Your task to perform on an android device: When is my next appointment? Image 0: 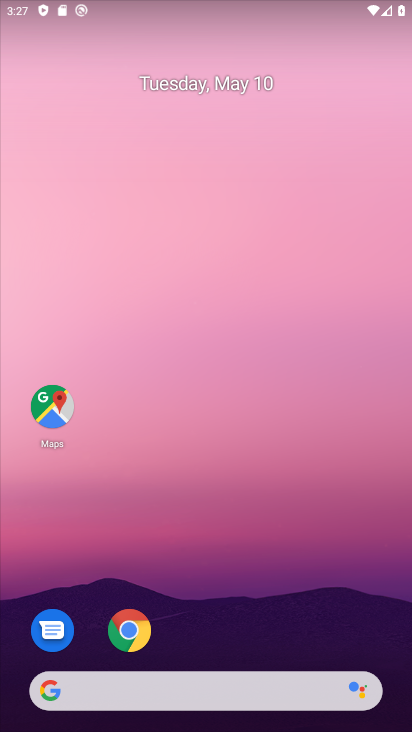
Step 0: drag from (194, 637) to (244, 232)
Your task to perform on an android device: When is my next appointment? Image 1: 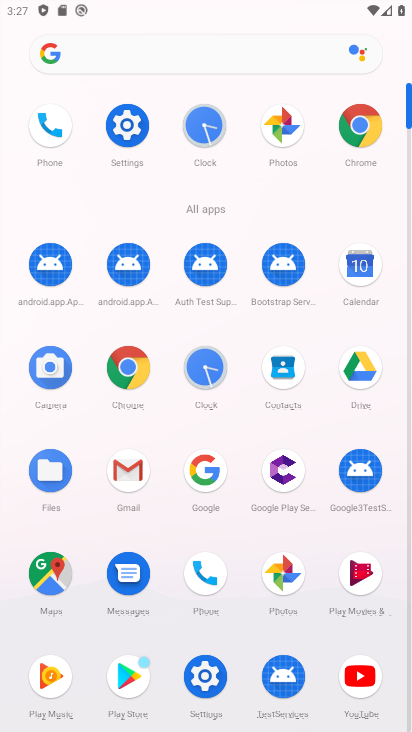
Step 1: click (384, 267)
Your task to perform on an android device: When is my next appointment? Image 2: 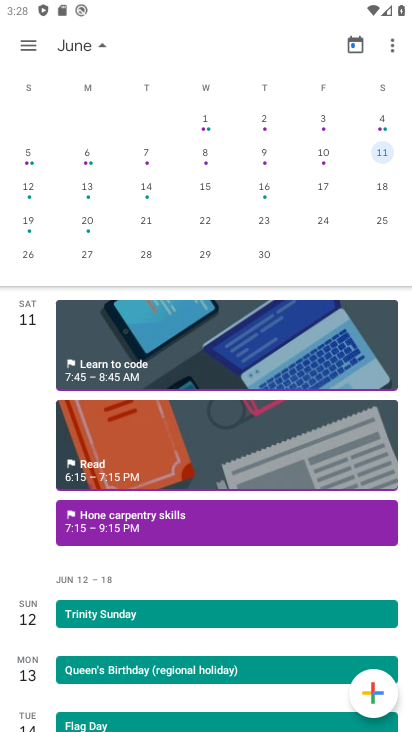
Step 2: task complete